Your task to perform on an android device: open sync settings in chrome Image 0: 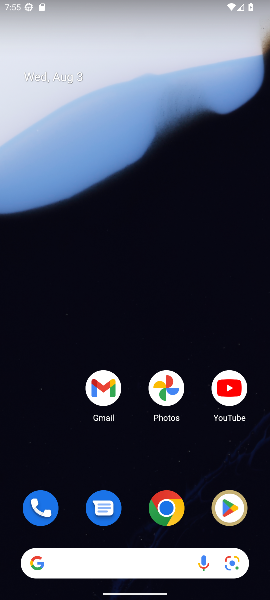
Step 0: drag from (139, 556) to (244, 360)
Your task to perform on an android device: open sync settings in chrome Image 1: 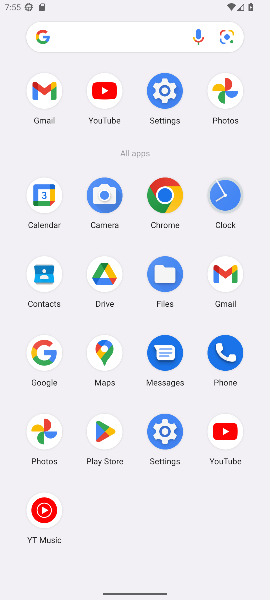
Step 1: click (153, 203)
Your task to perform on an android device: open sync settings in chrome Image 2: 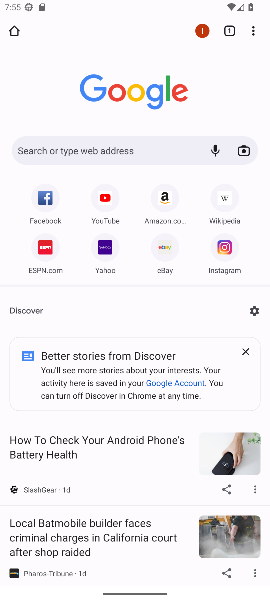
Step 2: click (251, 32)
Your task to perform on an android device: open sync settings in chrome Image 3: 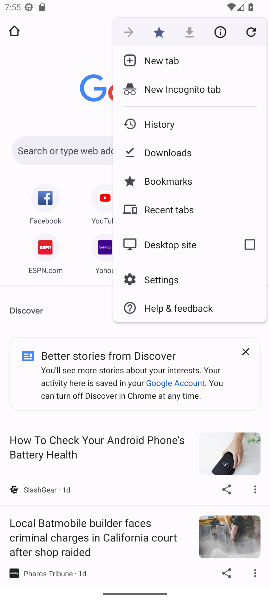
Step 3: click (161, 279)
Your task to perform on an android device: open sync settings in chrome Image 4: 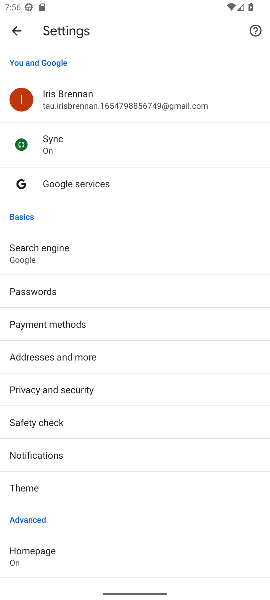
Step 4: click (61, 142)
Your task to perform on an android device: open sync settings in chrome Image 5: 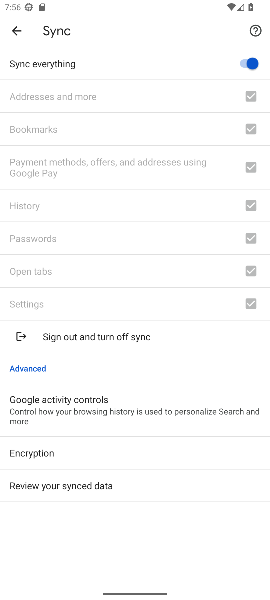
Step 5: task complete